Your task to perform on an android device: check out phone information Image 0: 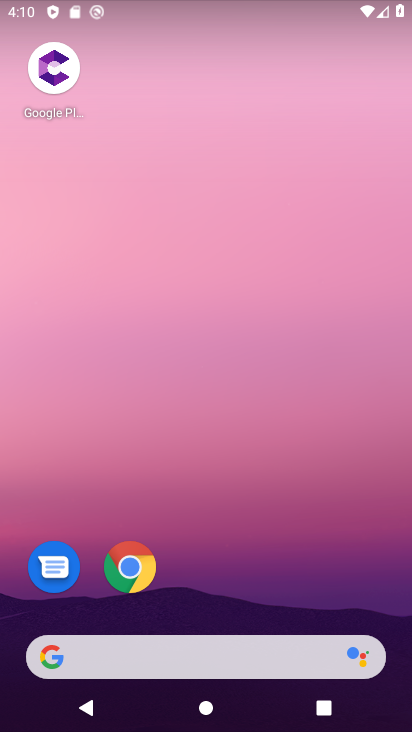
Step 0: drag from (145, 727) to (205, 45)
Your task to perform on an android device: check out phone information Image 1: 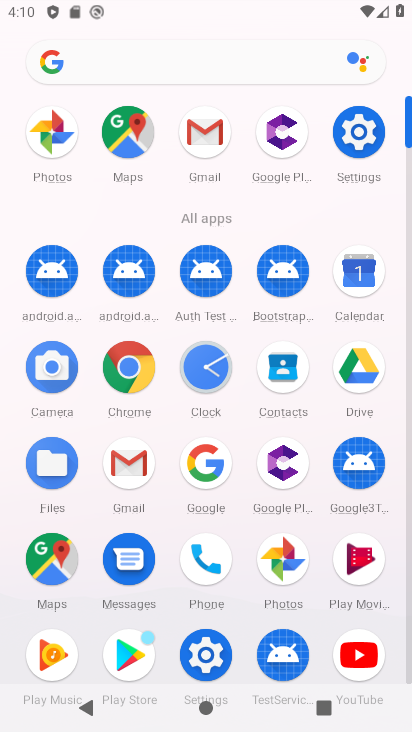
Step 1: click (352, 132)
Your task to perform on an android device: check out phone information Image 2: 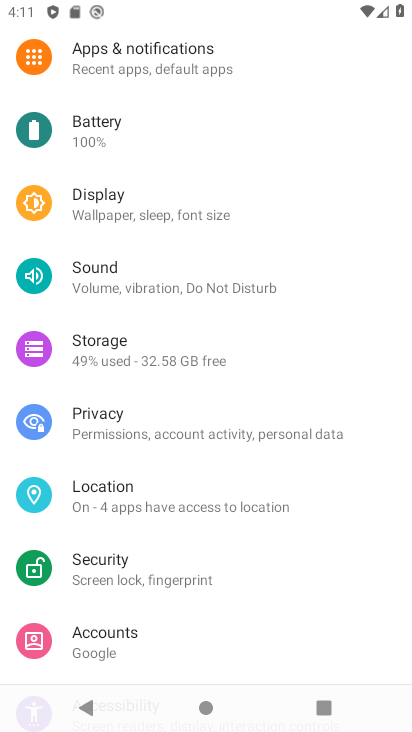
Step 2: drag from (164, 629) to (177, 148)
Your task to perform on an android device: check out phone information Image 3: 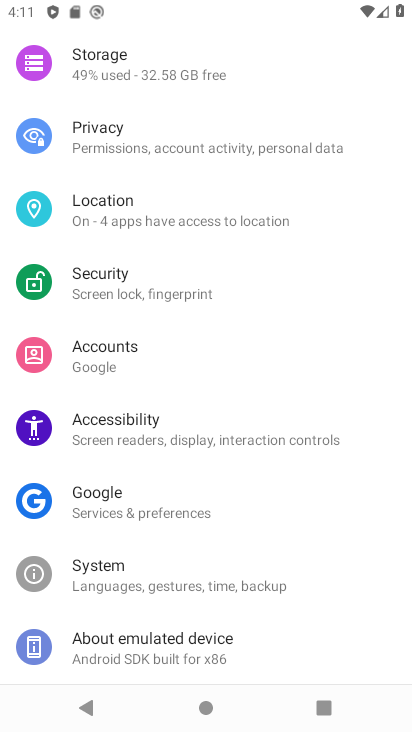
Step 3: click (129, 655)
Your task to perform on an android device: check out phone information Image 4: 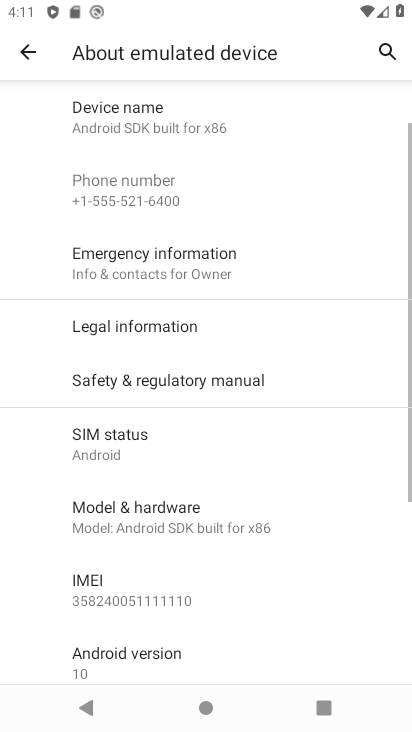
Step 4: task complete